Your task to perform on an android device: turn off javascript in the chrome app Image 0: 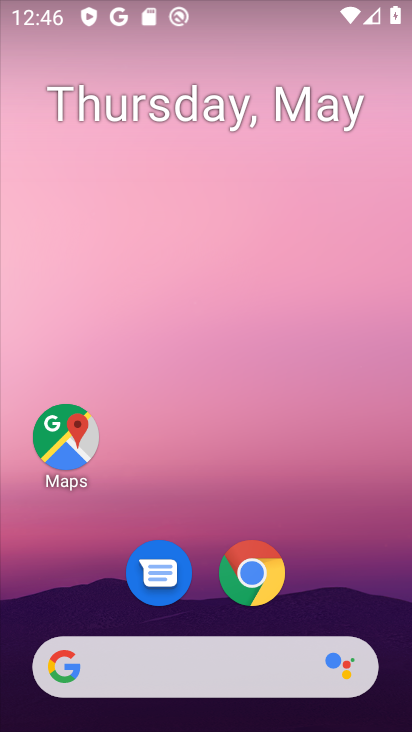
Step 0: drag from (324, 522) to (269, 44)
Your task to perform on an android device: turn off javascript in the chrome app Image 1: 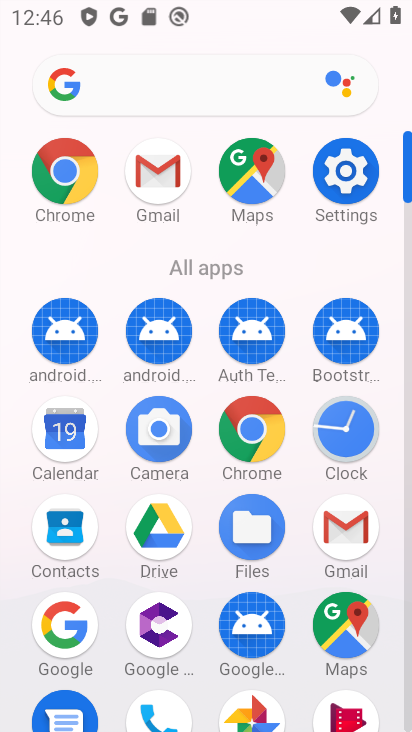
Step 1: click (253, 423)
Your task to perform on an android device: turn off javascript in the chrome app Image 2: 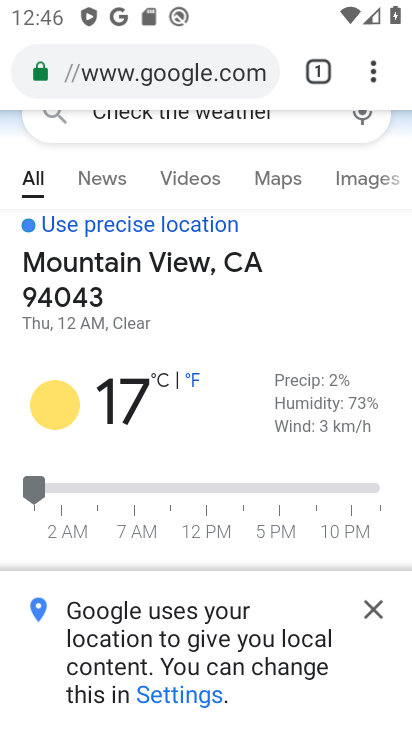
Step 2: drag from (368, 76) to (122, 571)
Your task to perform on an android device: turn off javascript in the chrome app Image 3: 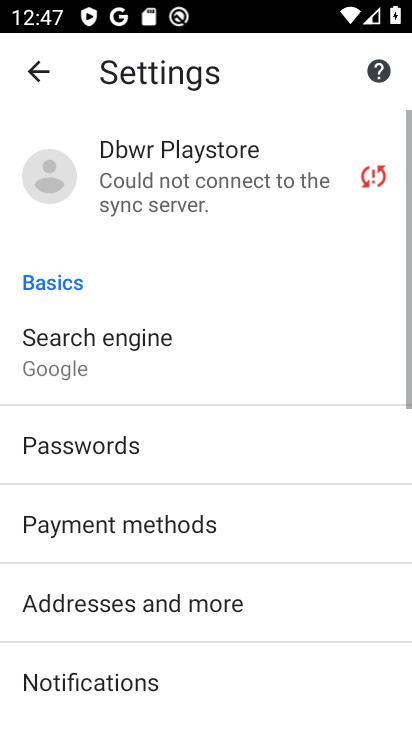
Step 3: drag from (265, 583) to (268, 173)
Your task to perform on an android device: turn off javascript in the chrome app Image 4: 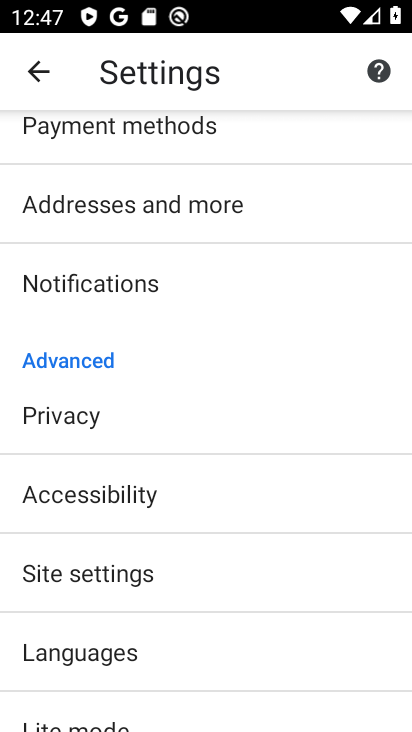
Step 4: drag from (258, 583) to (295, 177)
Your task to perform on an android device: turn off javascript in the chrome app Image 5: 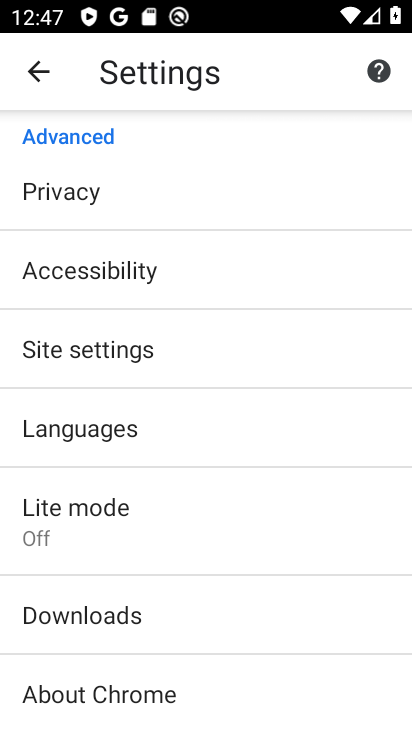
Step 5: drag from (217, 608) to (232, 225)
Your task to perform on an android device: turn off javascript in the chrome app Image 6: 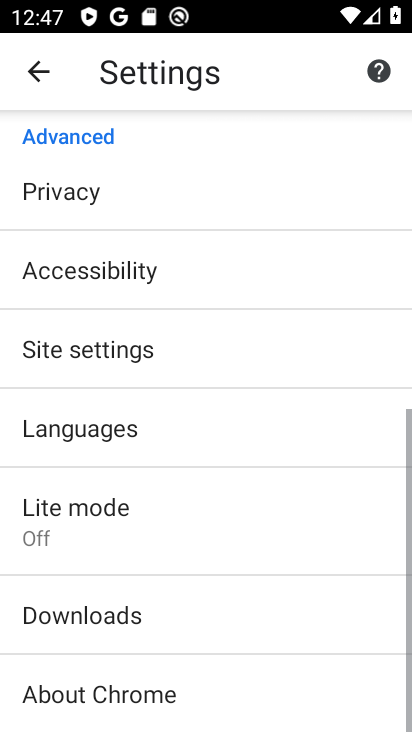
Step 6: drag from (232, 244) to (232, 484)
Your task to perform on an android device: turn off javascript in the chrome app Image 7: 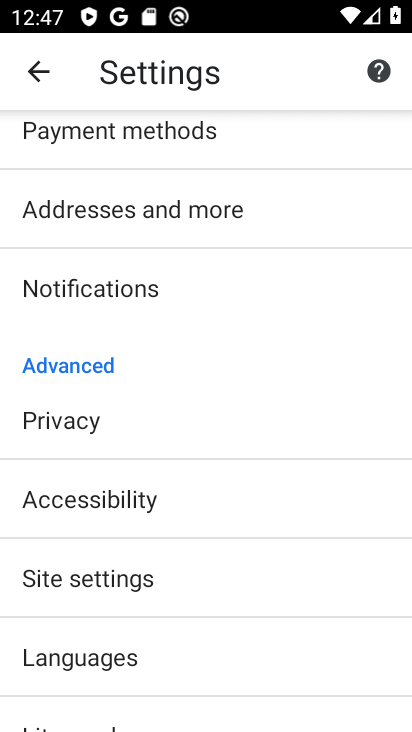
Step 7: click (241, 569)
Your task to perform on an android device: turn off javascript in the chrome app Image 8: 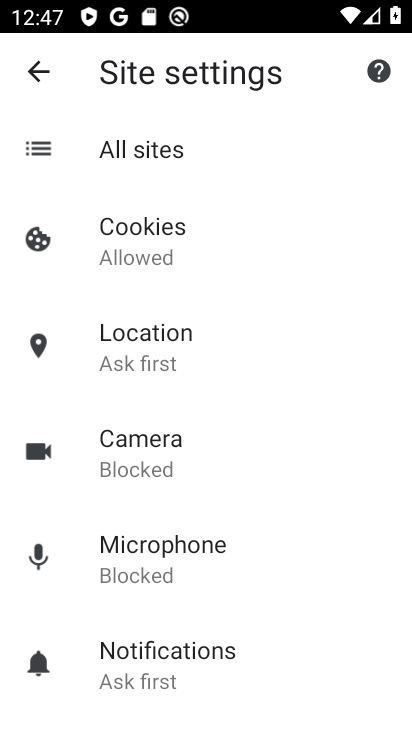
Step 8: drag from (264, 564) to (258, 170)
Your task to perform on an android device: turn off javascript in the chrome app Image 9: 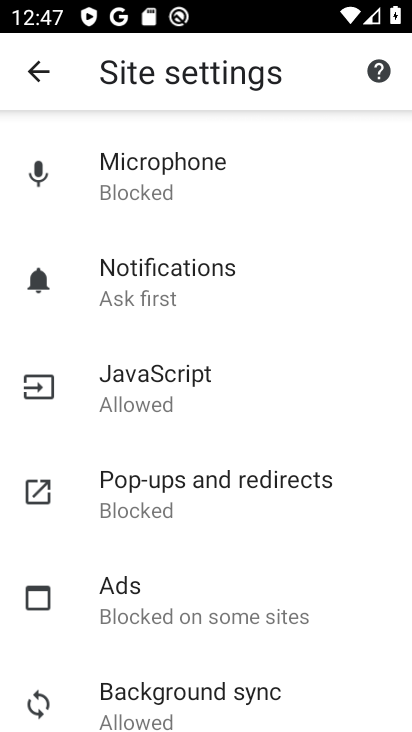
Step 9: click (208, 395)
Your task to perform on an android device: turn off javascript in the chrome app Image 10: 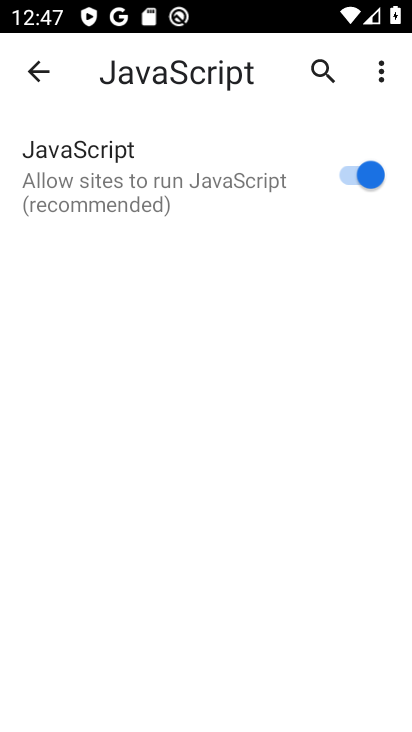
Step 10: click (353, 159)
Your task to perform on an android device: turn off javascript in the chrome app Image 11: 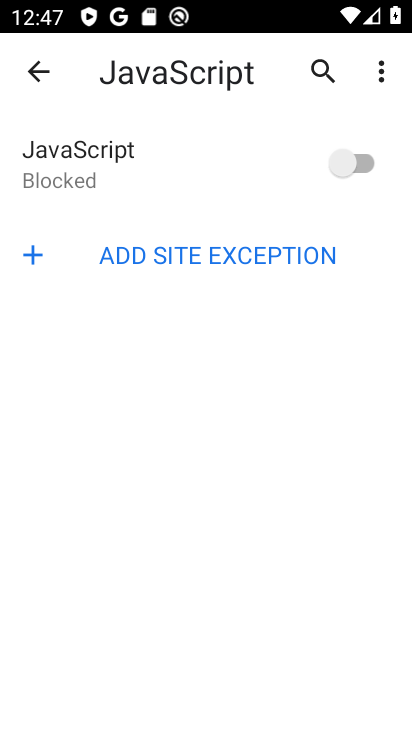
Step 11: task complete